Your task to perform on an android device: Do I have any events this weekend? Image 0: 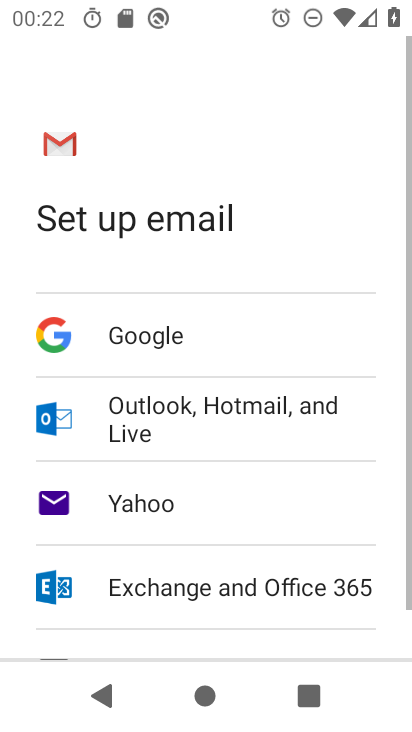
Step 0: press home button
Your task to perform on an android device: Do I have any events this weekend? Image 1: 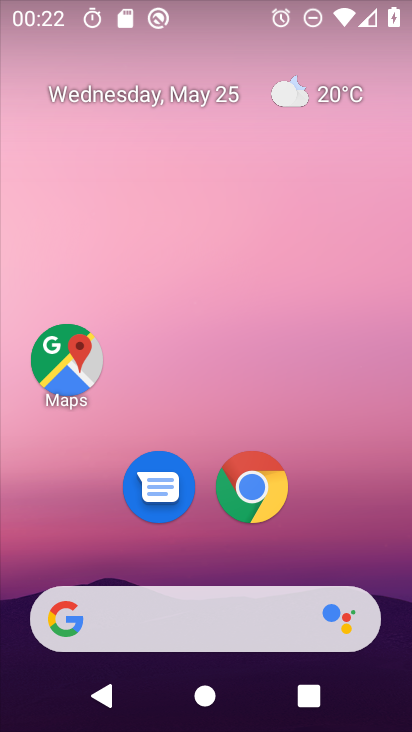
Step 1: drag from (340, 573) to (345, 16)
Your task to perform on an android device: Do I have any events this weekend? Image 2: 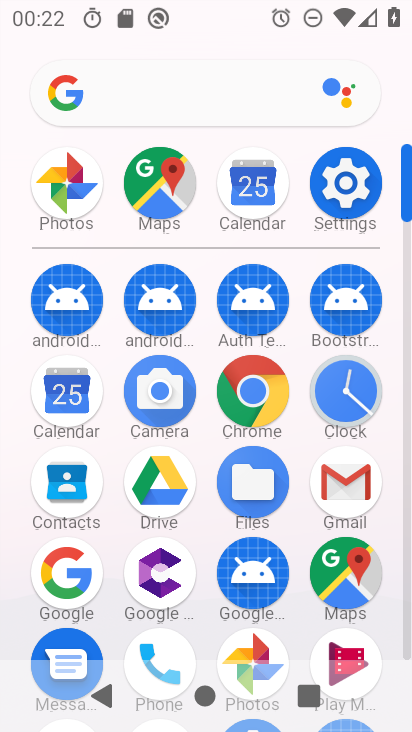
Step 2: click (65, 400)
Your task to perform on an android device: Do I have any events this weekend? Image 3: 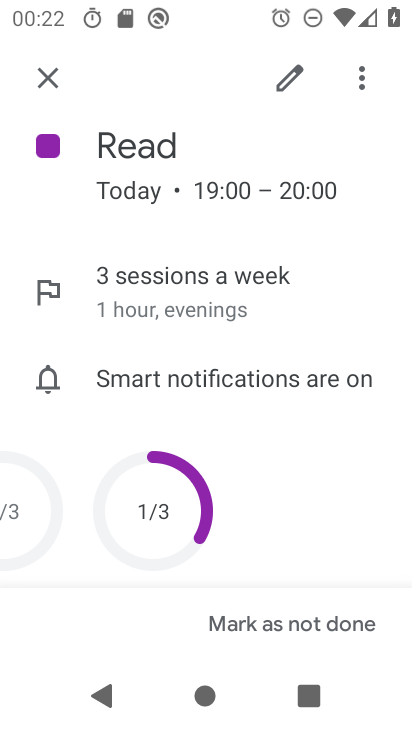
Step 3: click (50, 82)
Your task to perform on an android device: Do I have any events this weekend? Image 4: 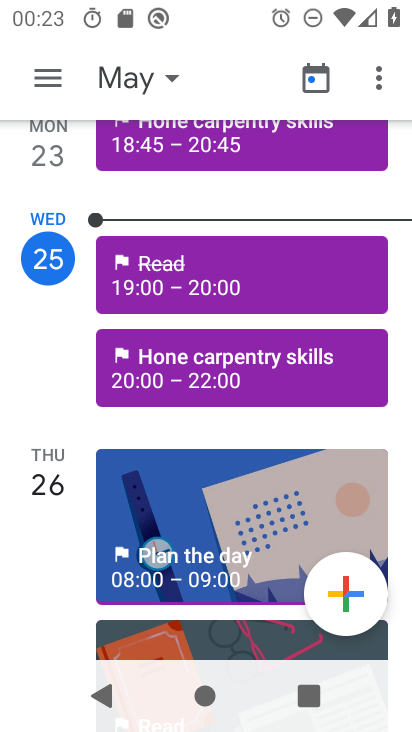
Step 4: click (168, 78)
Your task to perform on an android device: Do I have any events this weekend? Image 5: 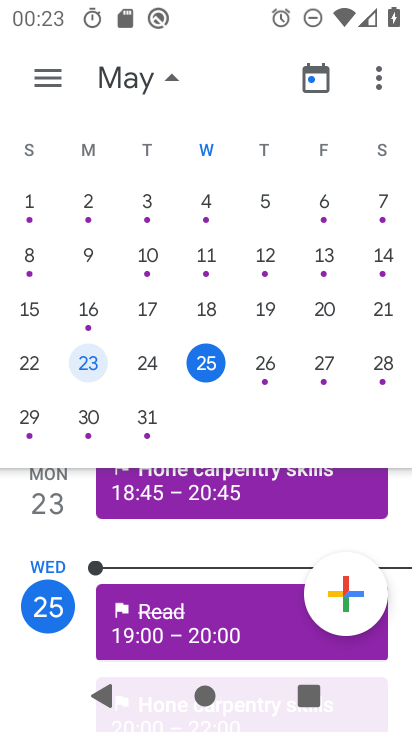
Step 5: click (42, 75)
Your task to perform on an android device: Do I have any events this weekend? Image 6: 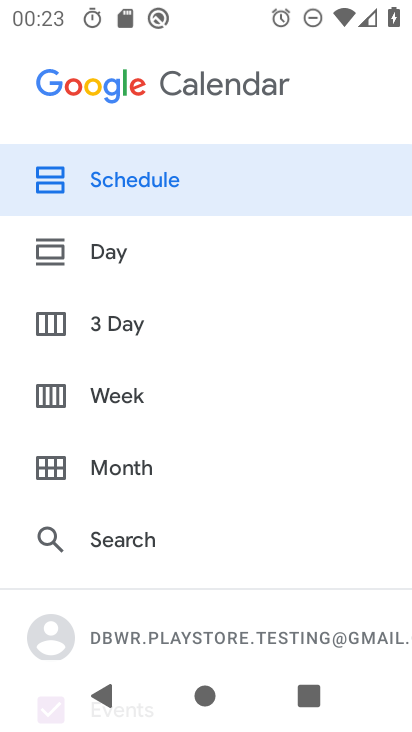
Step 6: click (112, 391)
Your task to perform on an android device: Do I have any events this weekend? Image 7: 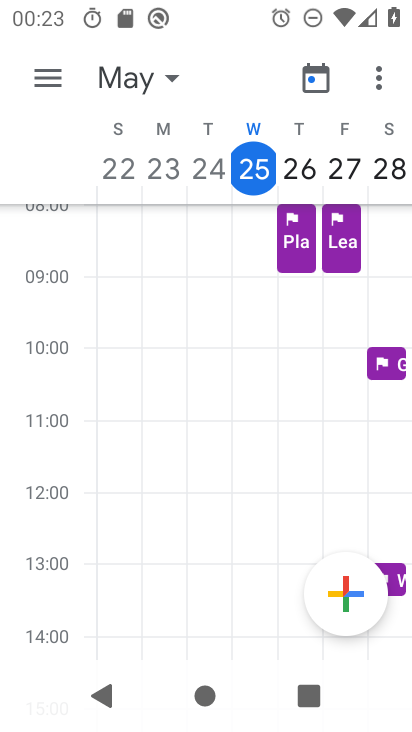
Step 7: click (387, 365)
Your task to perform on an android device: Do I have any events this weekend? Image 8: 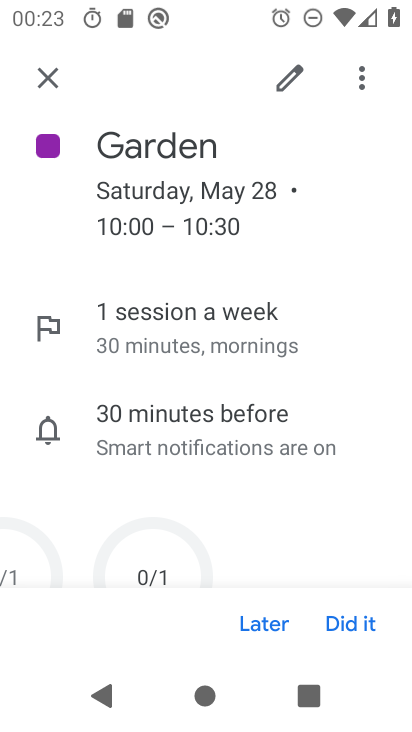
Step 8: task complete